Your task to perform on an android device: Play the last video I watched on Youtube Image 0: 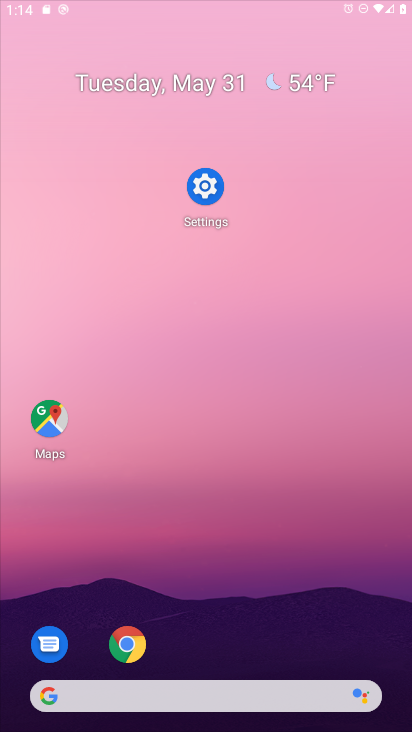
Step 0: press home button
Your task to perform on an android device: Play the last video I watched on Youtube Image 1: 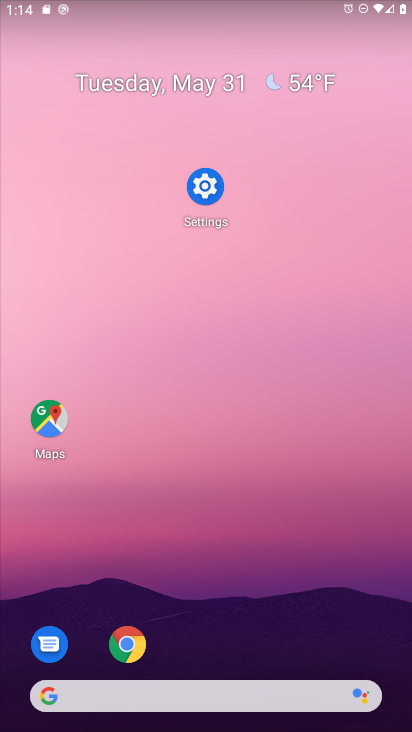
Step 1: drag from (294, 640) to (299, 196)
Your task to perform on an android device: Play the last video I watched on Youtube Image 2: 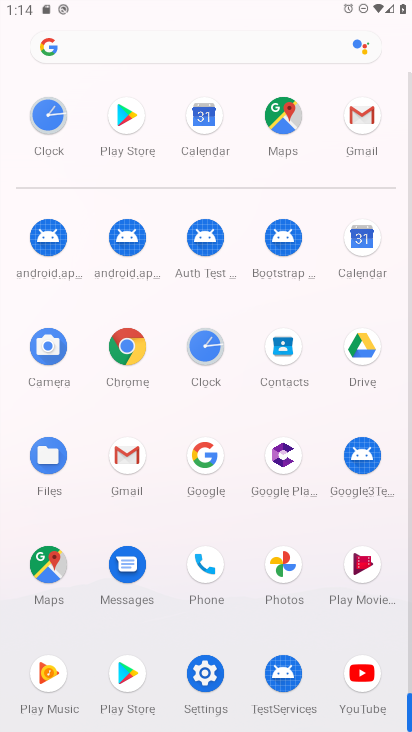
Step 2: click (364, 678)
Your task to perform on an android device: Play the last video I watched on Youtube Image 3: 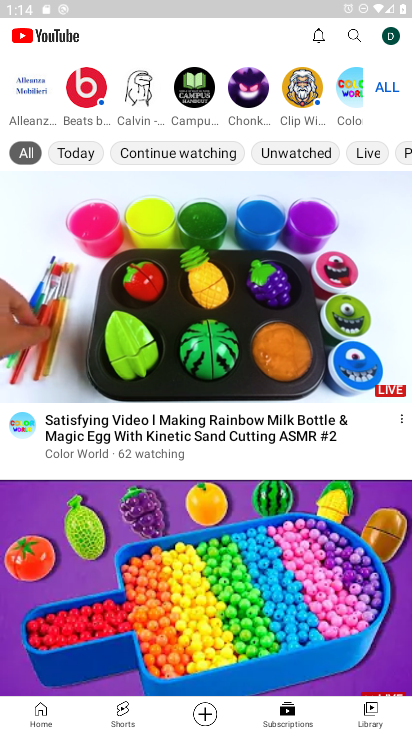
Step 3: click (375, 712)
Your task to perform on an android device: Play the last video I watched on Youtube Image 4: 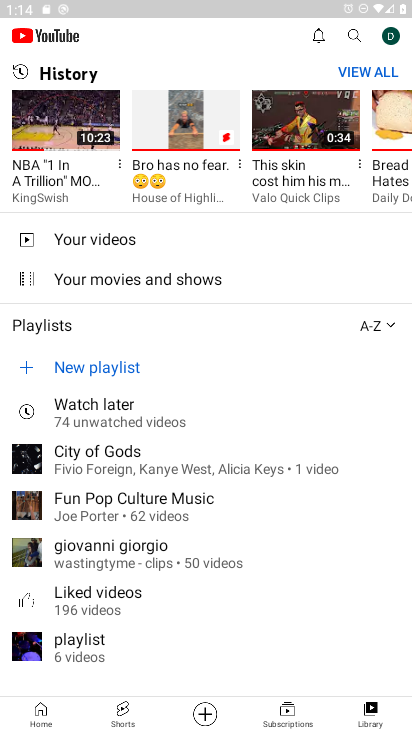
Step 4: click (59, 122)
Your task to perform on an android device: Play the last video I watched on Youtube Image 5: 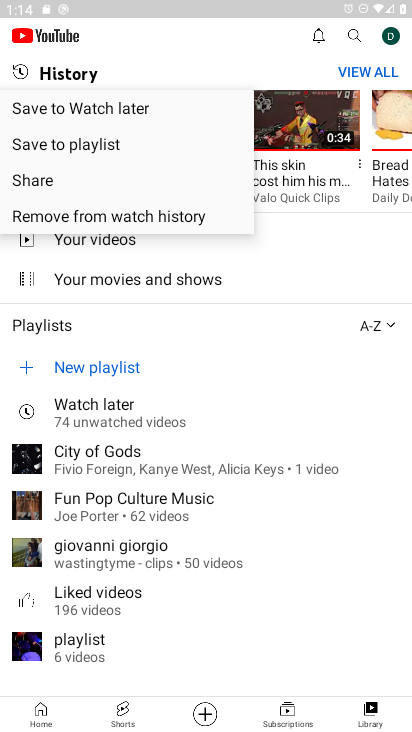
Step 5: click (95, 310)
Your task to perform on an android device: Play the last video I watched on Youtube Image 6: 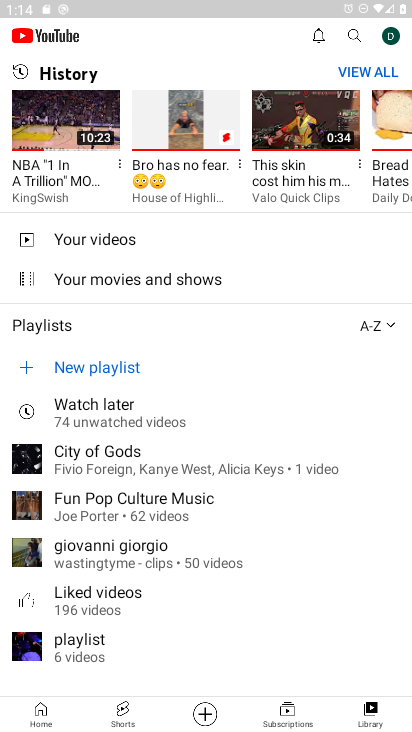
Step 6: click (72, 124)
Your task to perform on an android device: Play the last video I watched on Youtube Image 7: 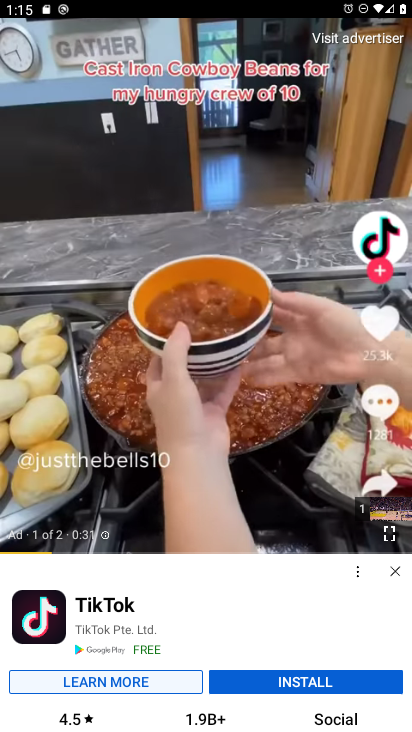
Step 7: click (393, 570)
Your task to perform on an android device: Play the last video I watched on Youtube Image 8: 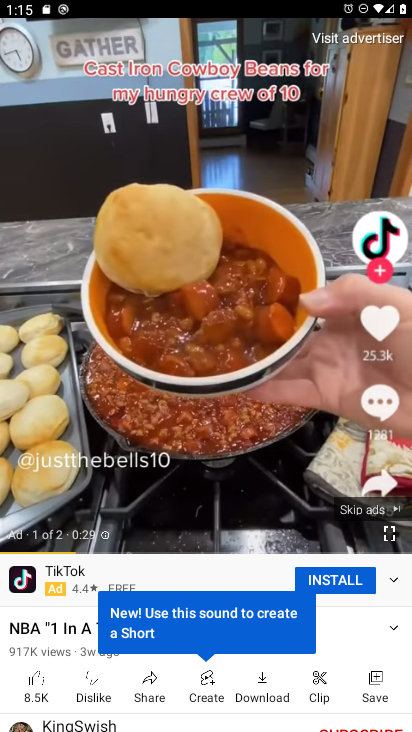
Step 8: click (362, 511)
Your task to perform on an android device: Play the last video I watched on Youtube Image 9: 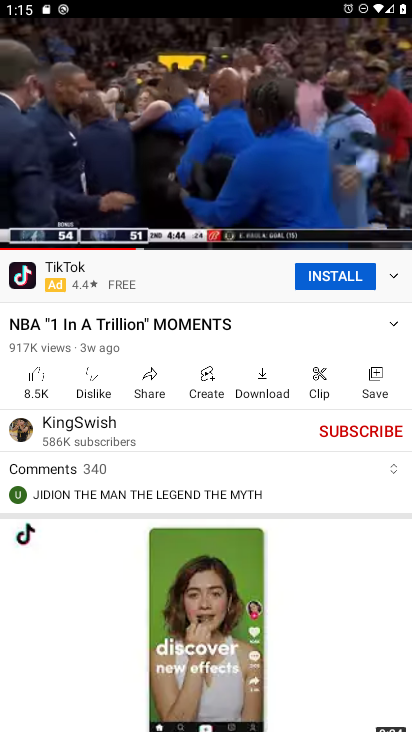
Step 9: task complete